Your task to perform on an android device: Open calendar and show me the third week of next month Image 0: 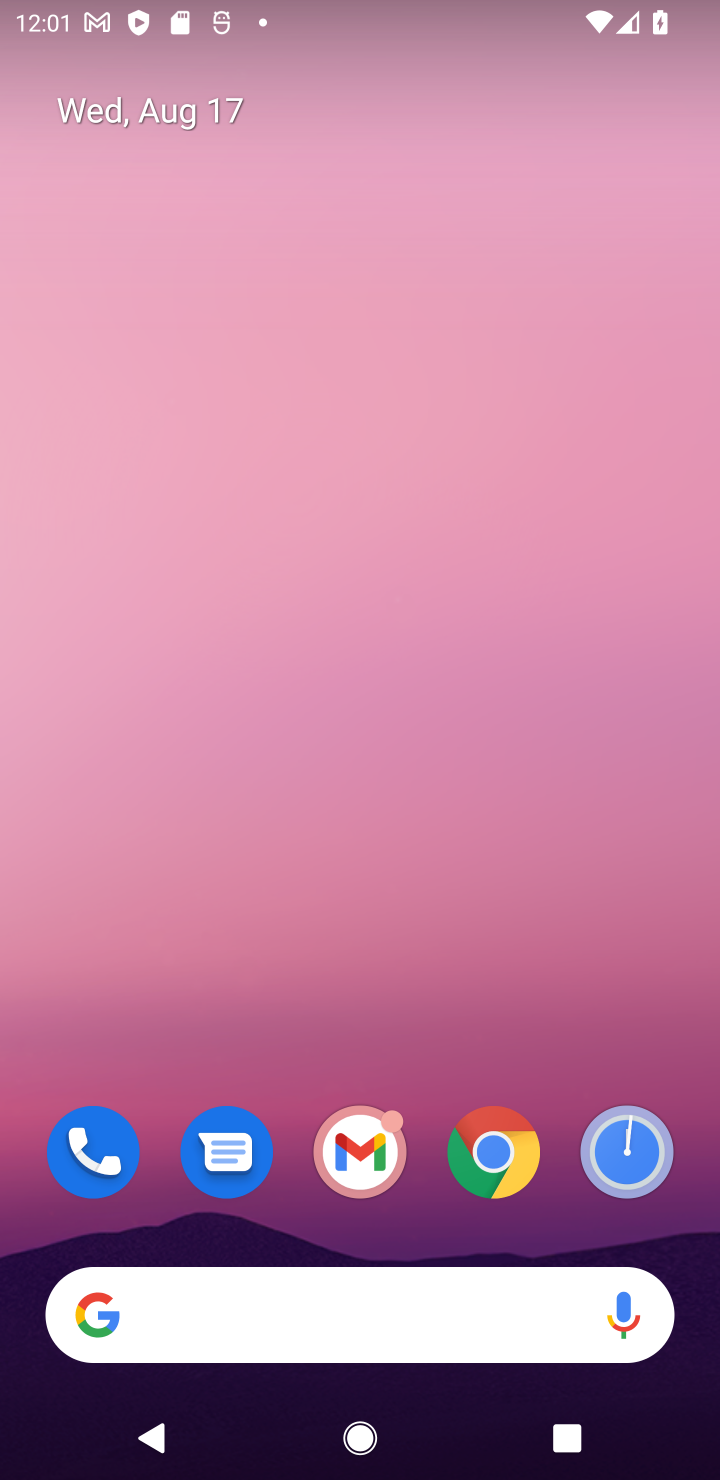
Step 0: drag from (665, 1262) to (291, 0)
Your task to perform on an android device: Open calendar and show me the third week of next month Image 1: 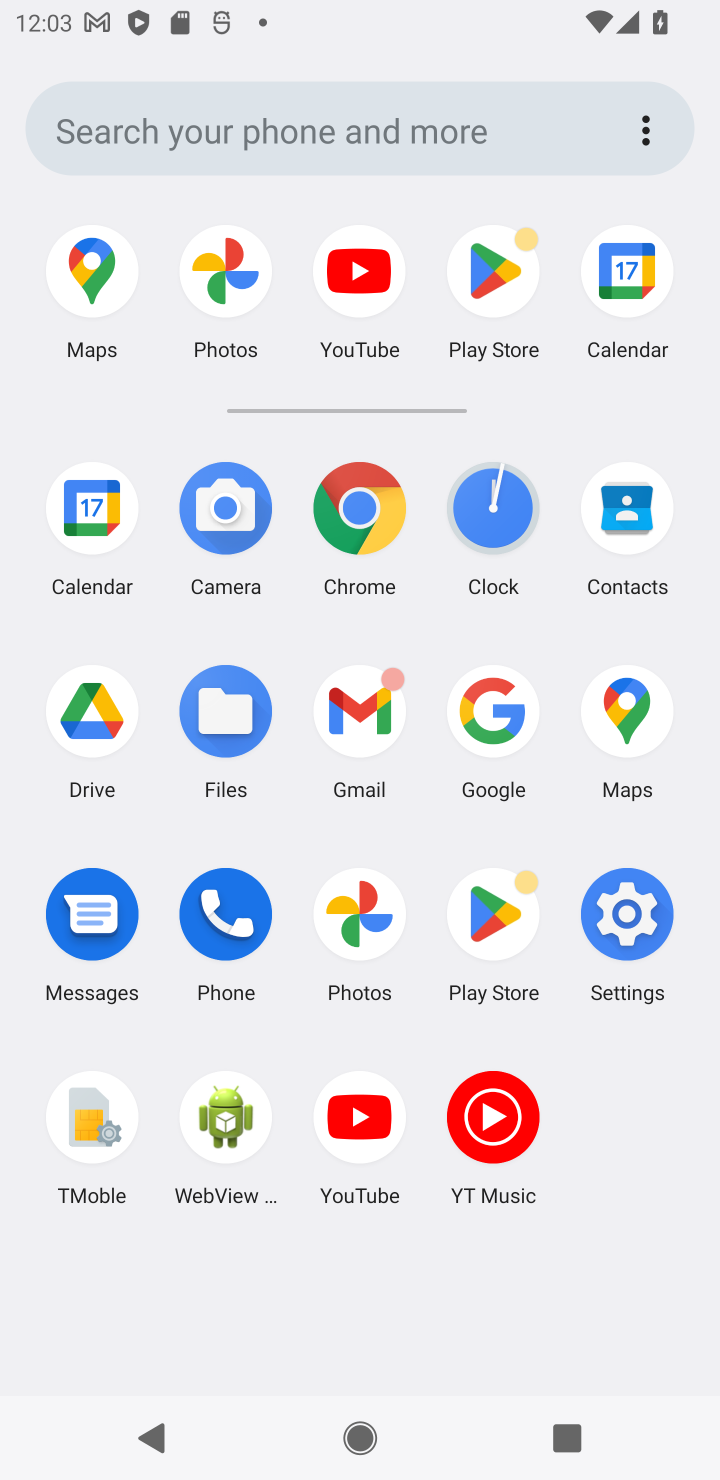
Step 1: click (83, 536)
Your task to perform on an android device: Open calendar and show me the third week of next month Image 2: 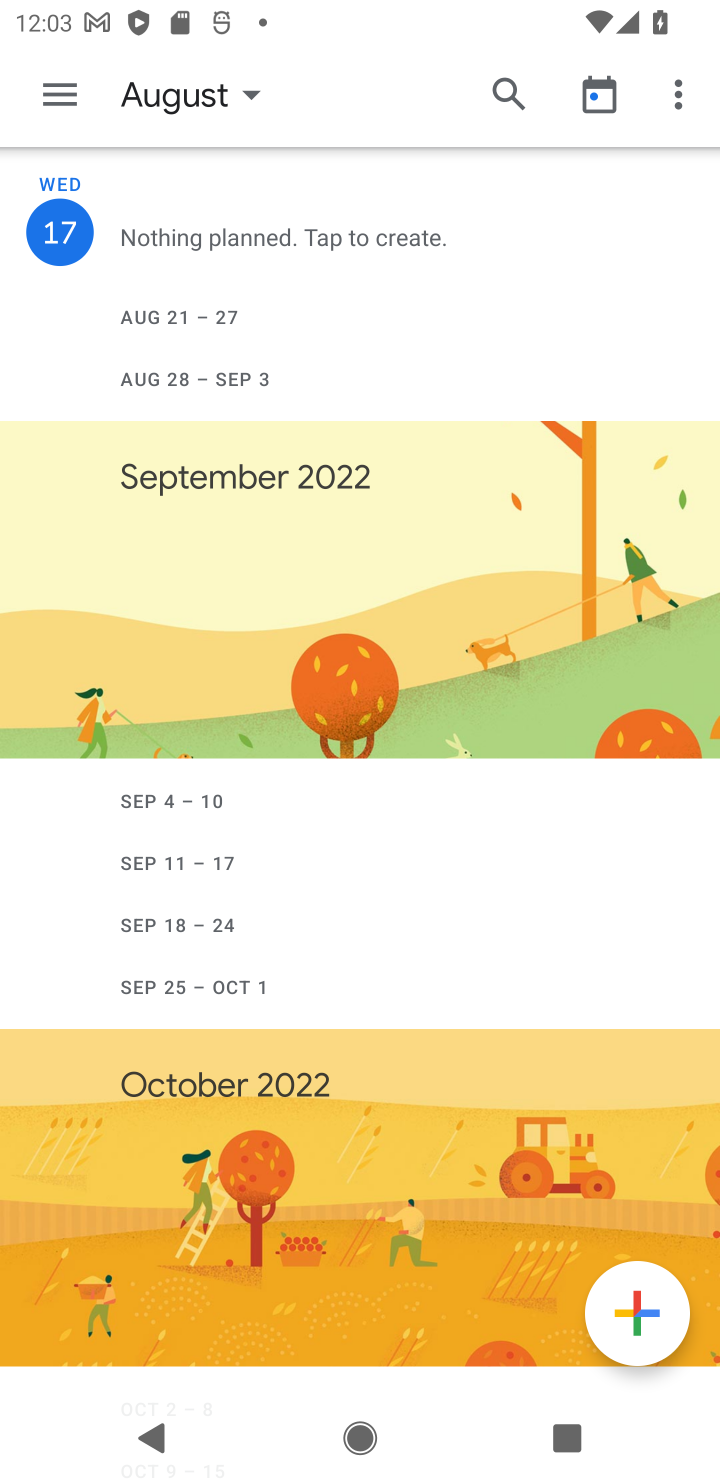
Step 2: click (171, 106)
Your task to perform on an android device: Open calendar and show me the third week of next month Image 3: 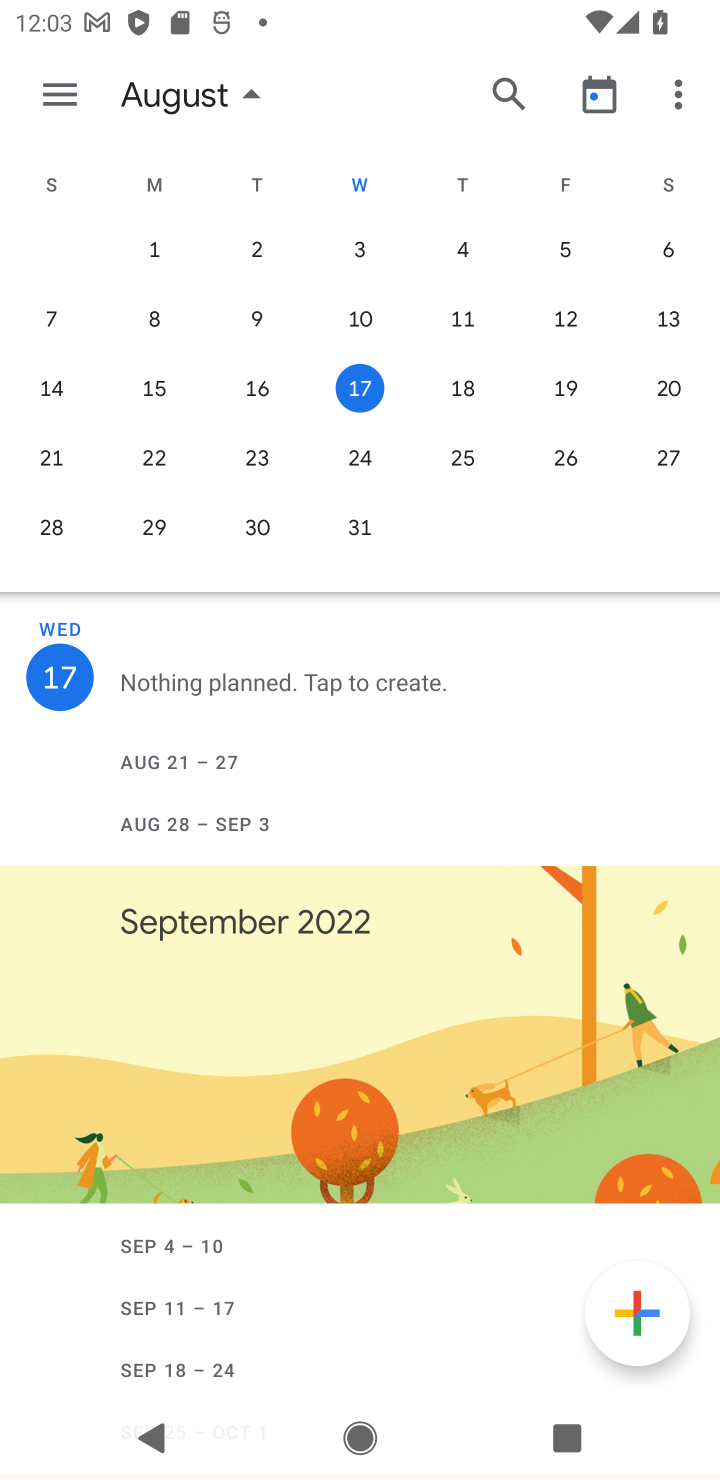
Step 3: click (48, 456)
Your task to perform on an android device: Open calendar and show me the third week of next month Image 4: 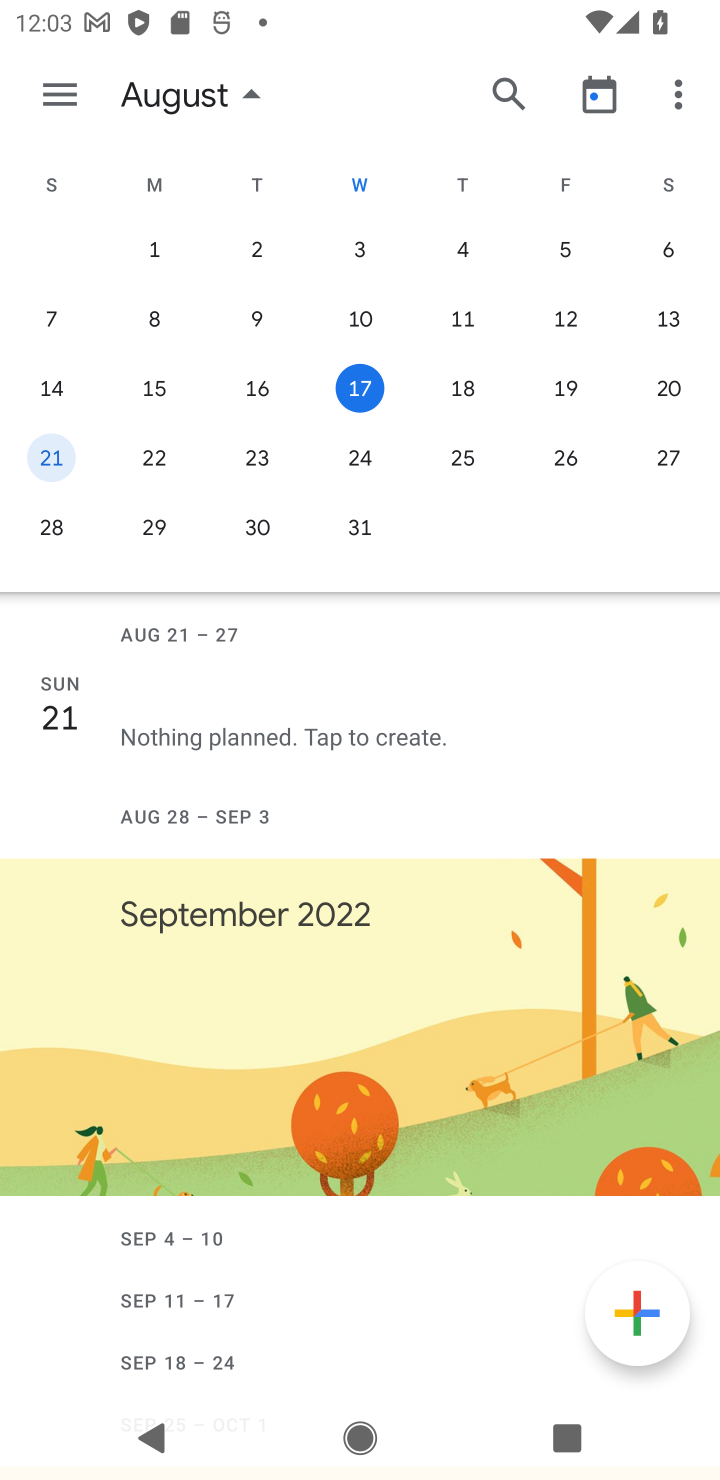
Step 4: drag from (542, 270) to (3, 362)
Your task to perform on an android device: Open calendar and show me the third week of next month Image 5: 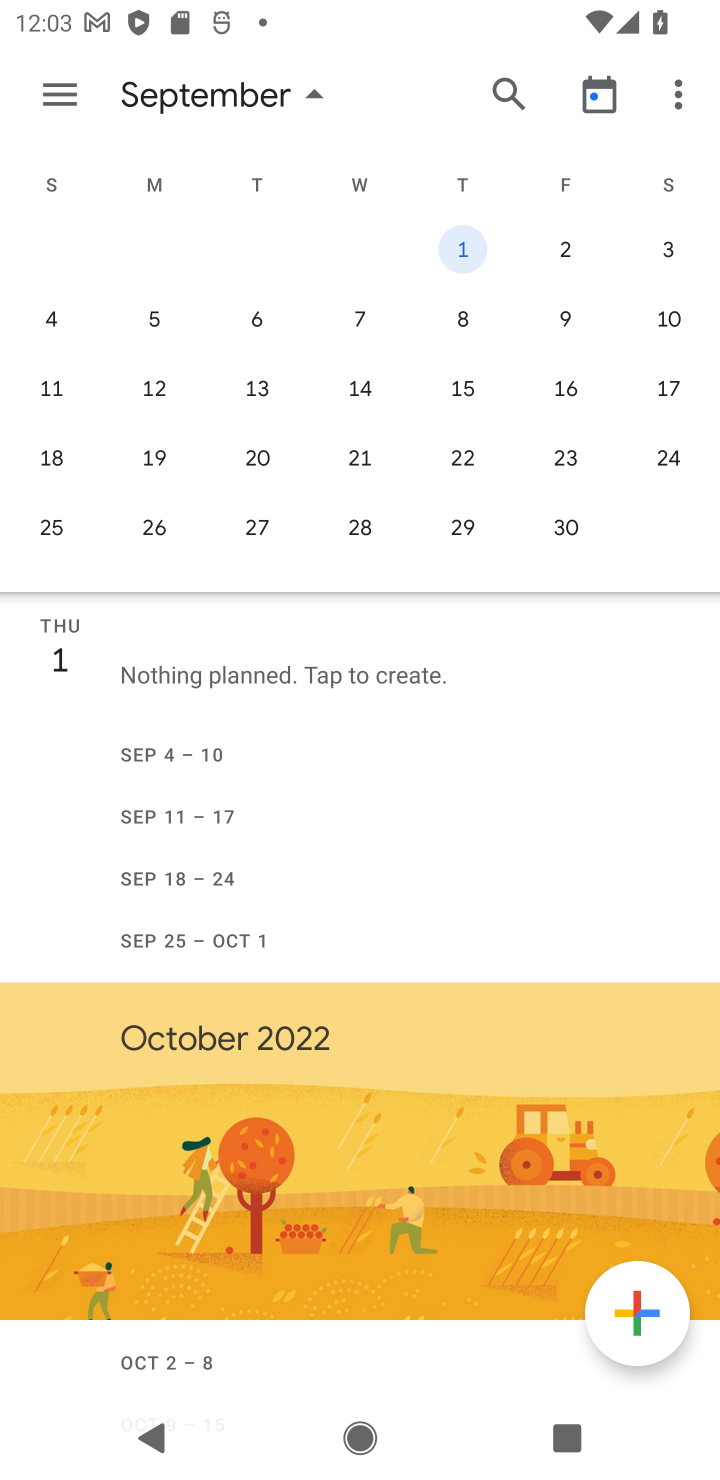
Step 5: click (53, 456)
Your task to perform on an android device: Open calendar and show me the third week of next month Image 6: 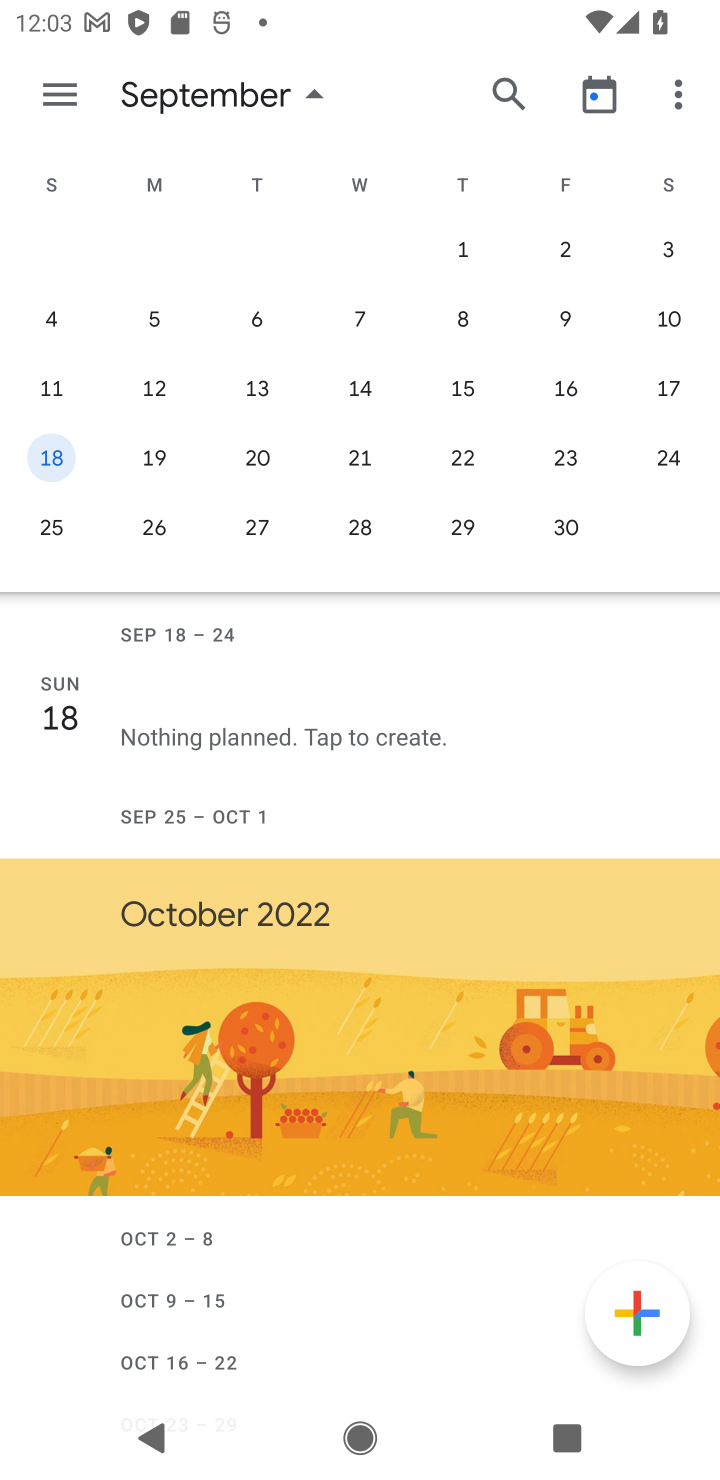
Step 6: task complete